Your task to perform on an android device: Play the last video I watched on Youtube Image 0: 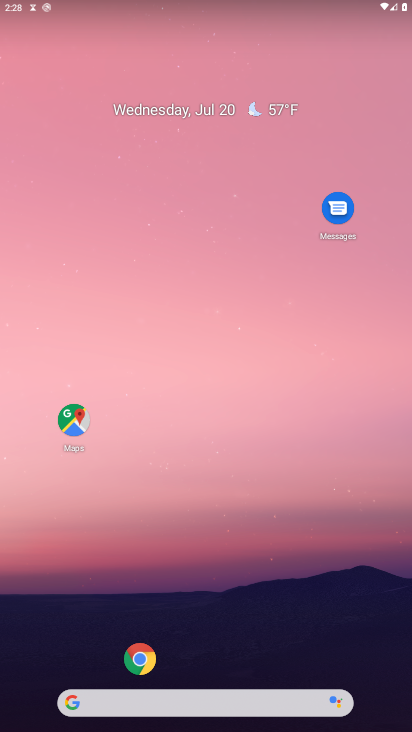
Step 0: drag from (38, 684) to (116, 9)
Your task to perform on an android device: Play the last video I watched on Youtube Image 1: 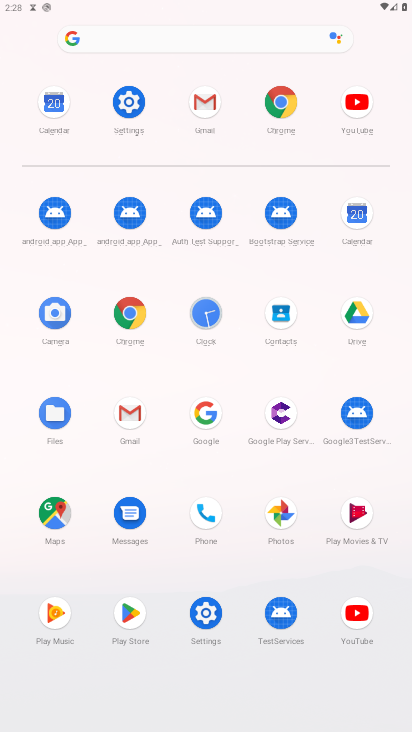
Step 1: click (346, 602)
Your task to perform on an android device: Play the last video I watched on Youtube Image 2: 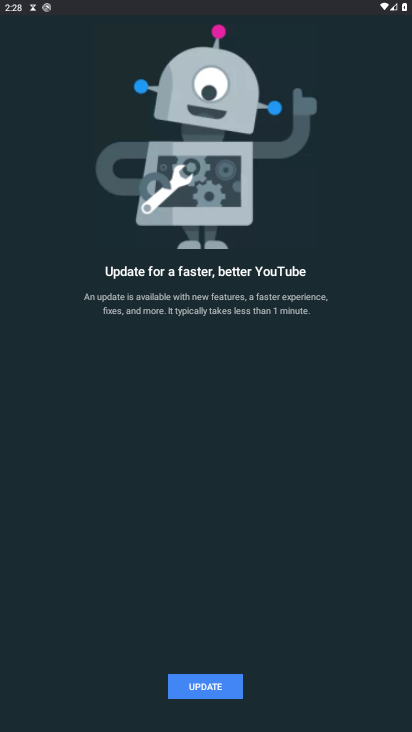
Step 2: click (185, 688)
Your task to perform on an android device: Play the last video I watched on Youtube Image 3: 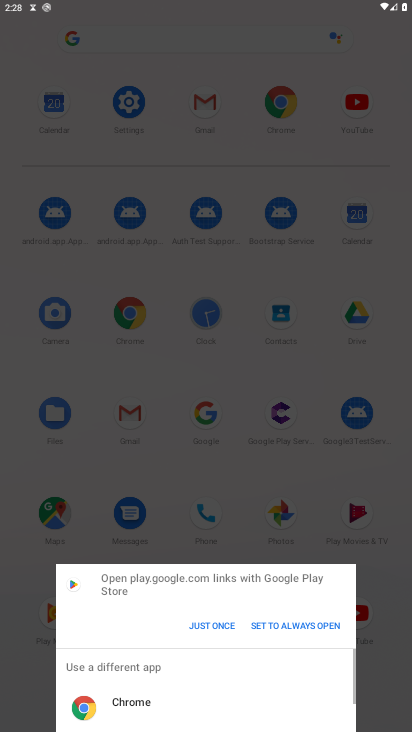
Step 3: click (205, 625)
Your task to perform on an android device: Play the last video I watched on Youtube Image 4: 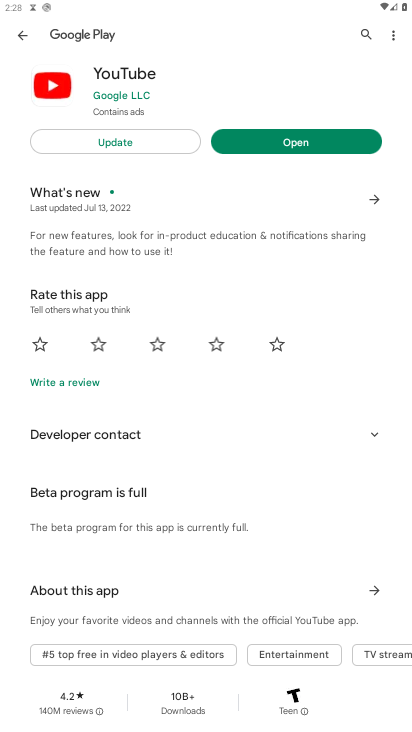
Step 4: click (228, 630)
Your task to perform on an android device: Play the last video I watched on Youtube Image 5: 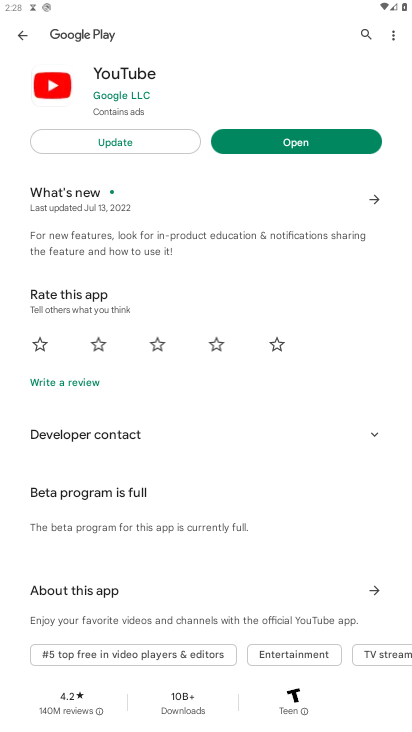
Step 5: click (295, 134)
Your task to perform on an android device: Play the last video I watched on Youtube Image 6: 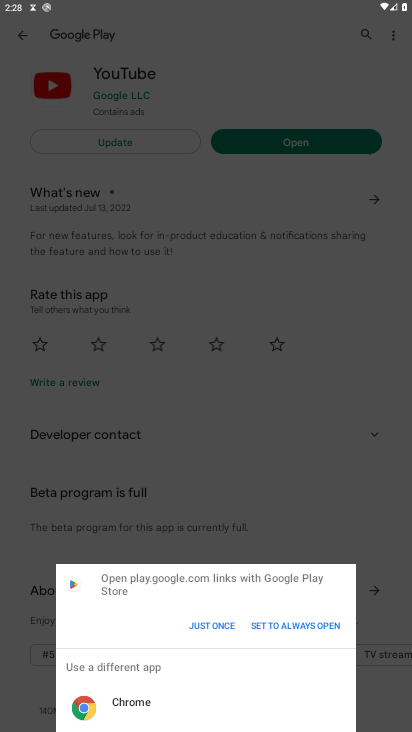
Step 6: click (209, 618)
Your task to perform on an android device: Play the last video I watched on Youtube Image 7: 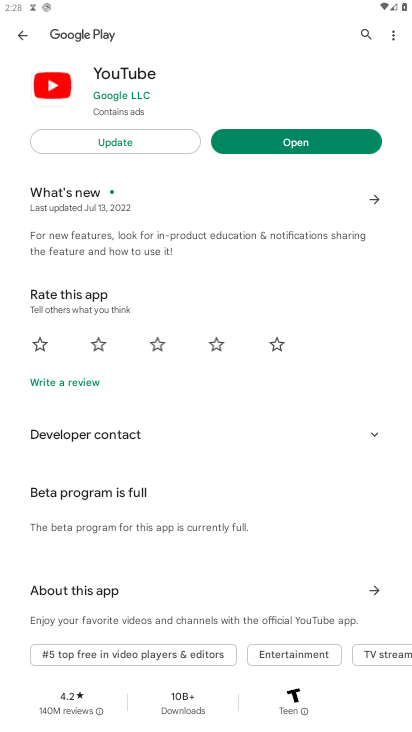
Step 7: task complete